Your task to perform on an android device: change keyboard looks Image 0: 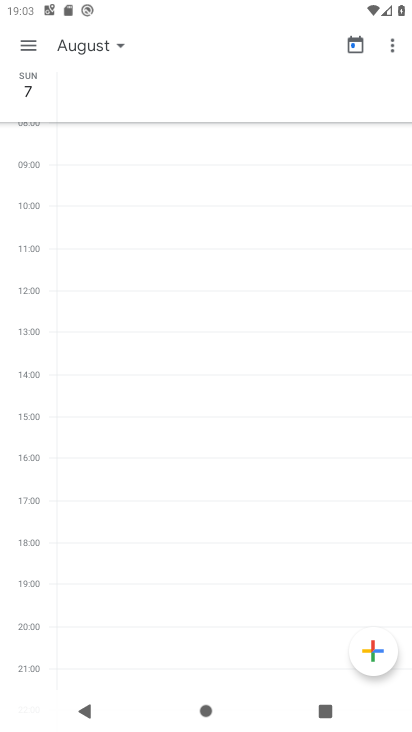
Step 0: press home button
Your task to perform on an android device: change keyboard looks Image 1: 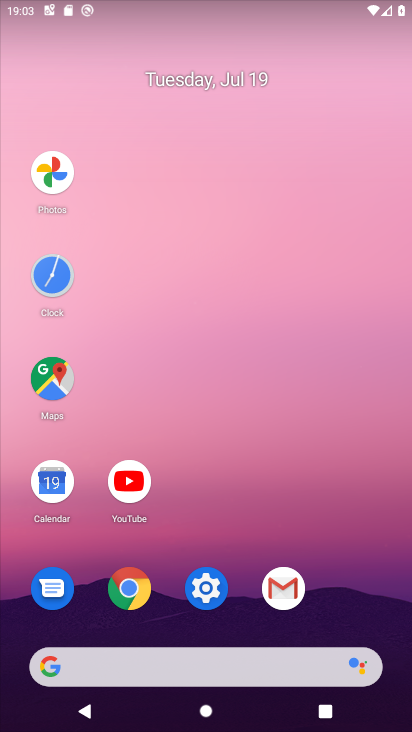
Step 1: click (208, 586)
Your task to perform on an android device: change keyboard looks Image 2: 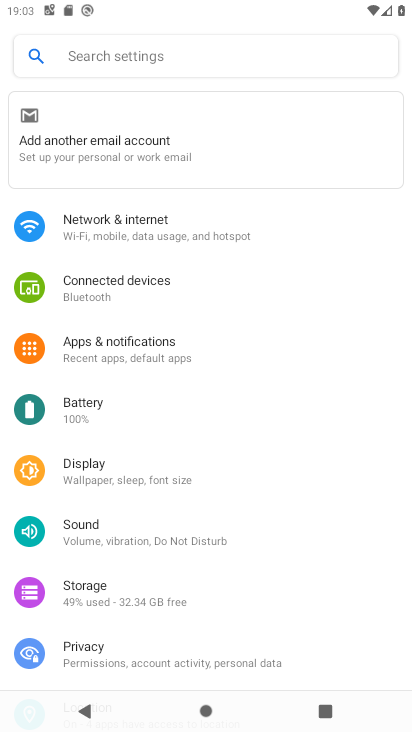
Step 2: drag from (250, 597) to (240, 275)
Your task to perform on an android device: change keyboard looks Image 3: 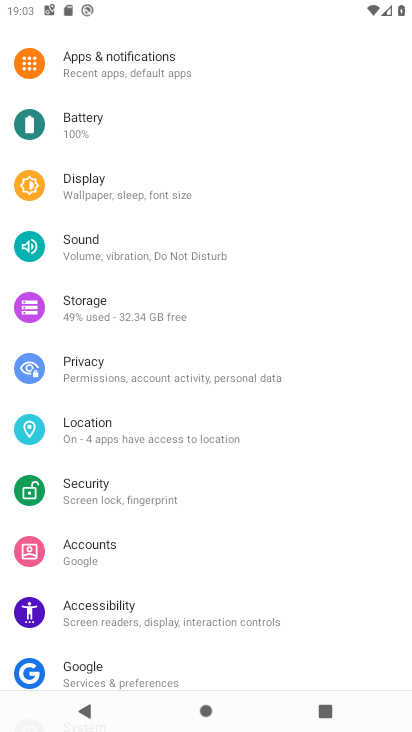
Step 3: drag from (297, 643) to (214, 199)
Your task to perform on an android device: change keyboard looks Image 4: 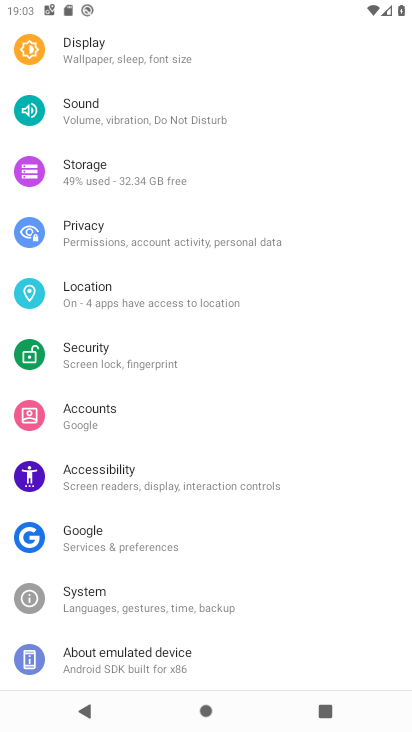
Step 4: click (87, 585)
Your task to perform on an android device: change keyboard looks Image 5: 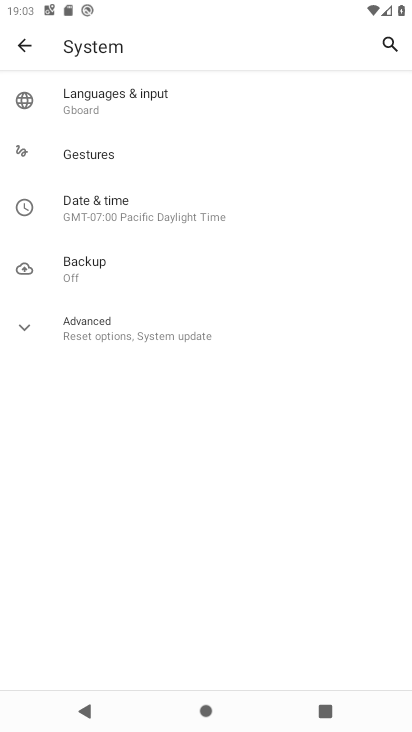
Step 5: click (102, 96)
Your task to perform on an android device: change keyboard looks Image 6: 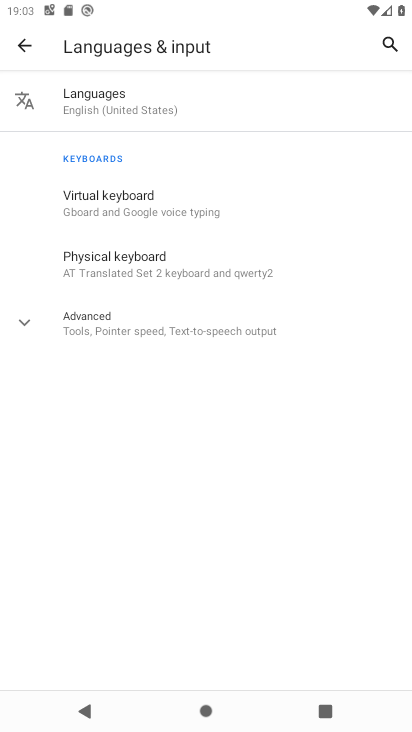
Step 6: click (108, 194)
Your task to perform on an android device: change keyboard looks Image 7: 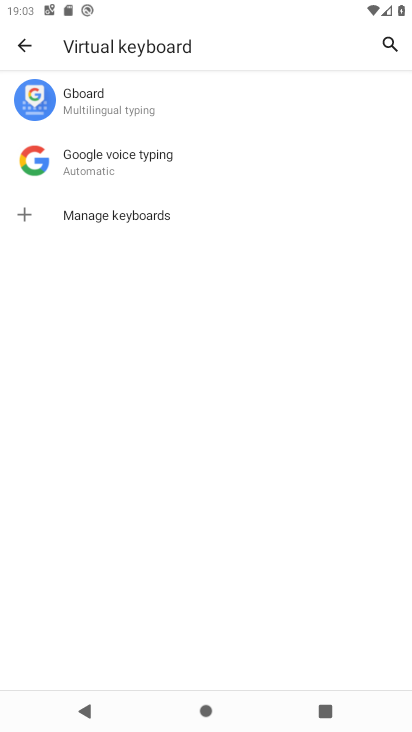
Step 7: click (85, 94)
Your task to perform on an android device: change keyboard looks Image 8: 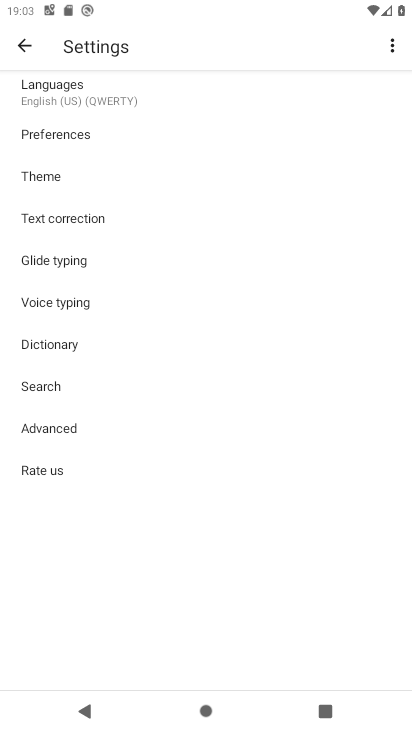
Step 8: click (44, 177)
Your task to perform on an android device: change keyboard looks Image 9: 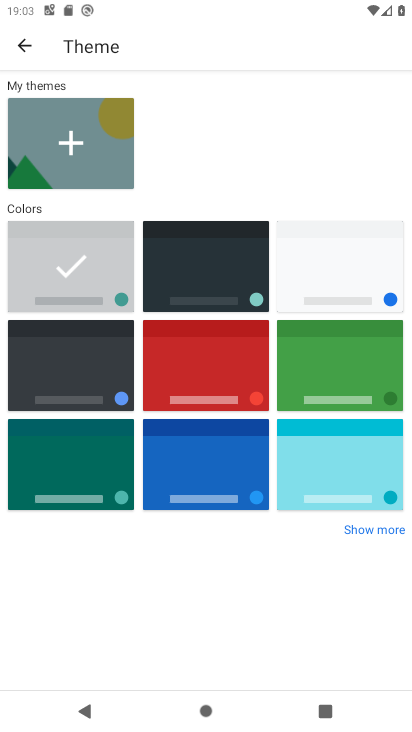
Step 9: click (189, 275)
Your task to perform on an android device: change keyboard looks Image 10: 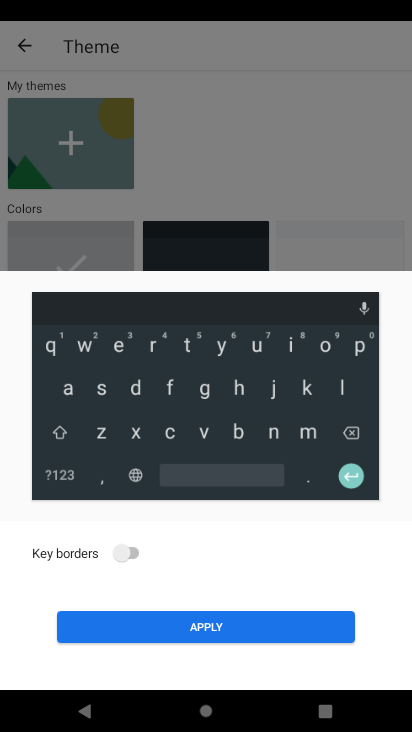
Step 10: click (237, 622)
Your task to perform on an android device: change keyboard looks Image 11: 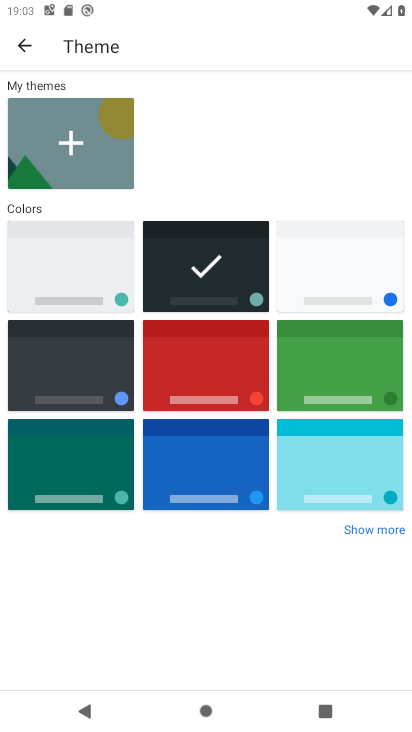
Step 11: task complete